Your task to perform on an android device: Turn on the flashlight Image 0: 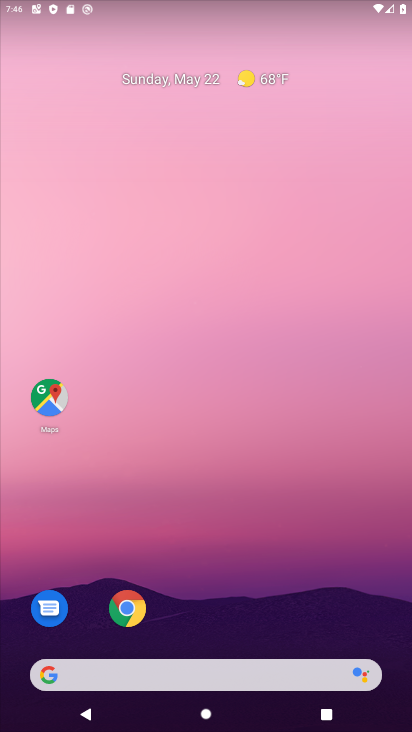
Step 0: drag from (225, 729) to (233, 157)
Your task to perform on an android device: Turn on the flashlight Image 1: 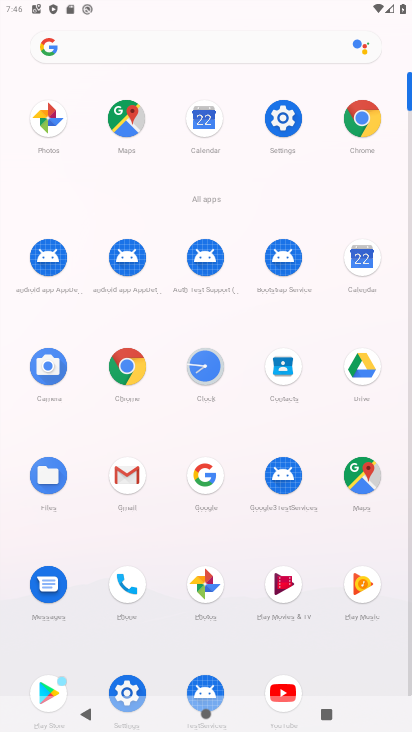
Step 1: click (282, 119)
Your task to perform on an android device: Turn on the flashlight Image 2: 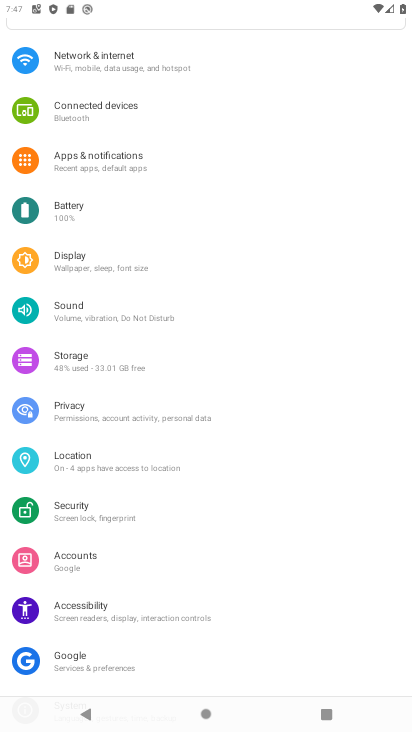
Step 2: task complete